Your task to perform on an android device: delete the emails in spam in the gmail app Image 0: 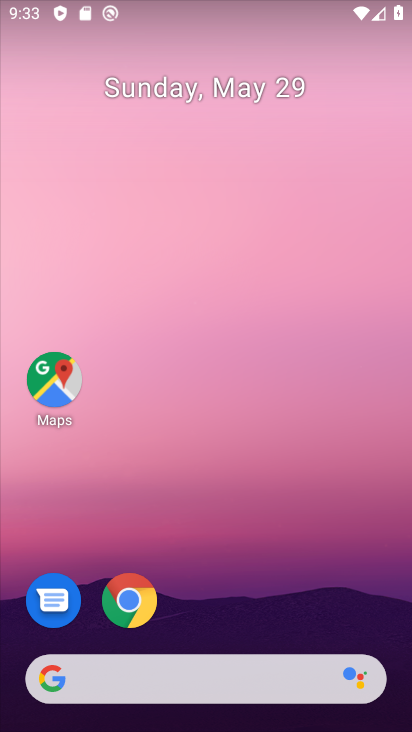
Step 0: drag from (288, 584) to (267, 104)
Your task to perform on an android device: delete the emails in spam in the gmail app Image 1: 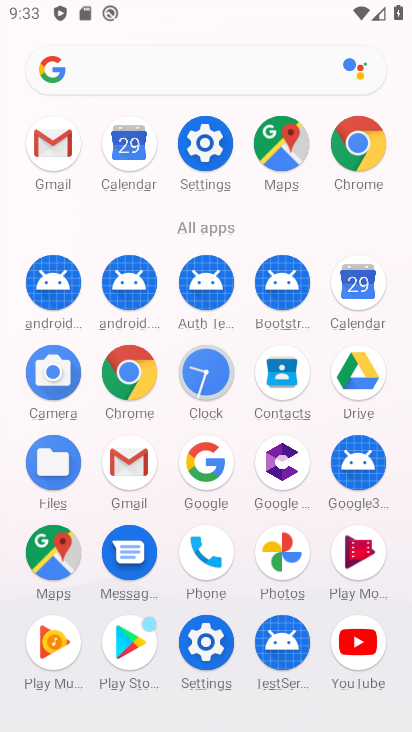
Step 1: click (61, 140)
Your task to perform on an android device: delete the emails in spam in the gmail app Image 2: 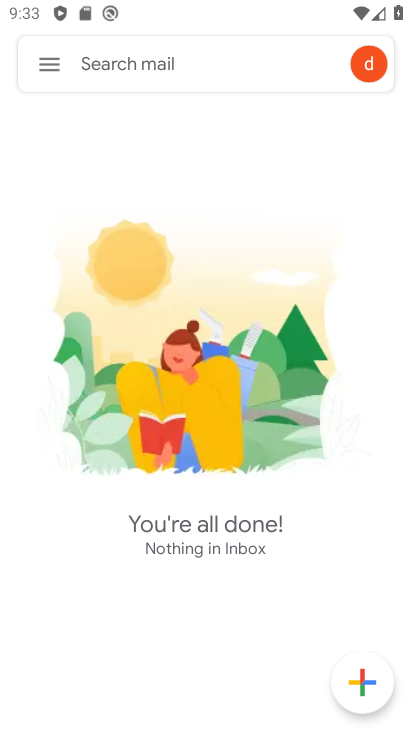
Step 2: click (53, 71)
Your task to perform on an android device: delete the emails in spam in the gmail app Image 3: 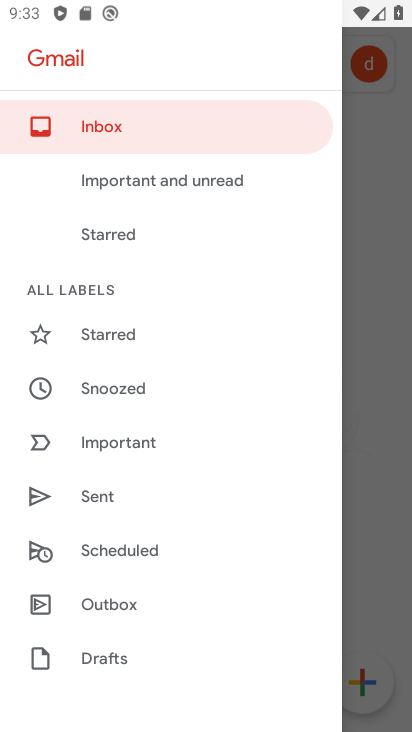
Step 3: drag from (158, 617) to (160, 311)
Your task to perform on an android device: delete the emails in spam in the gmail app Image 4: 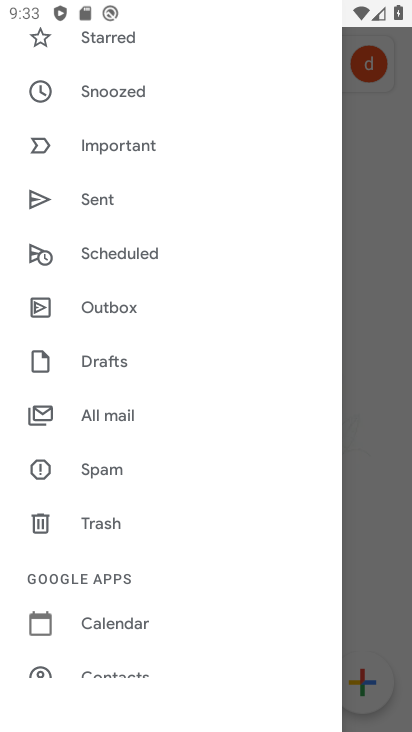
Step 4: click (93, 468)
Your task to perform on an android device: delete the emails in spam in the gmail app Image 5: 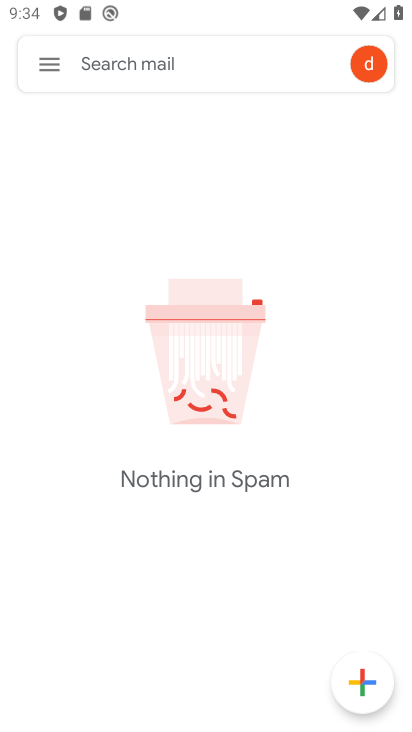
Step 5: task complete